Your task to perform on an android device: turn on improve location accuracy Image 0: 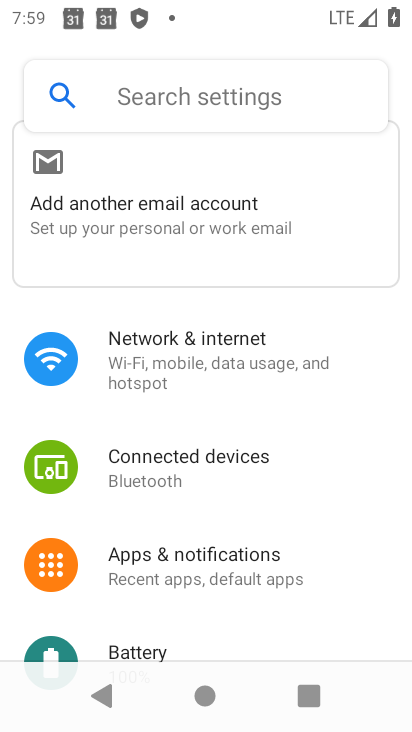
Step 0: press home button
Your task to perform on an android device: turn on improve location accuracy Image 1: 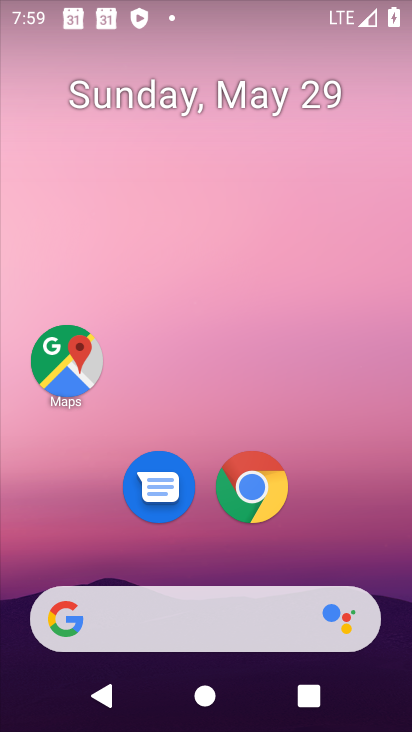
Step 1: drag from (121, 696) to (273, 233)
Your task to perform on an android device: turn on improve location accuracy Image 2: 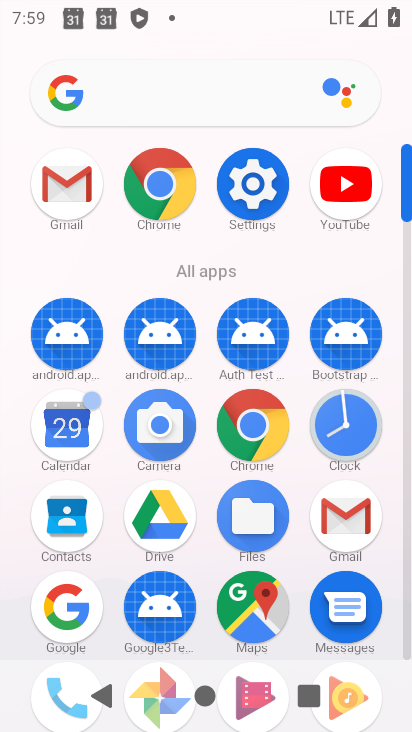
Step 2: click (269, 200)
Your task to perform on an android device: turn on improve location accuracy Image 3: 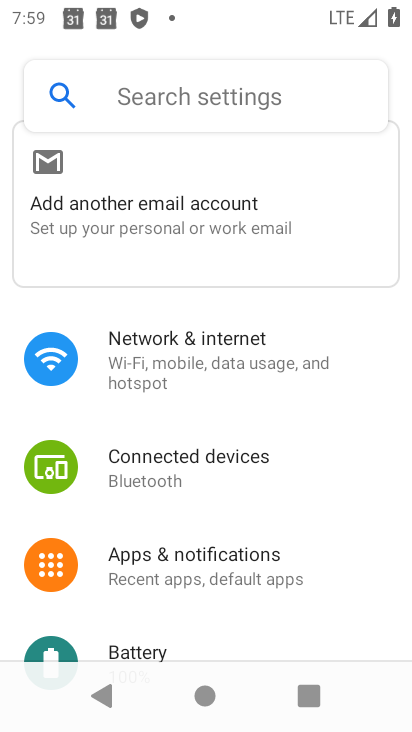
Step 3: drag from (69, 495) to (147, 129)
Your task to perform on an android device: turn on improve location accuracy Image 4: 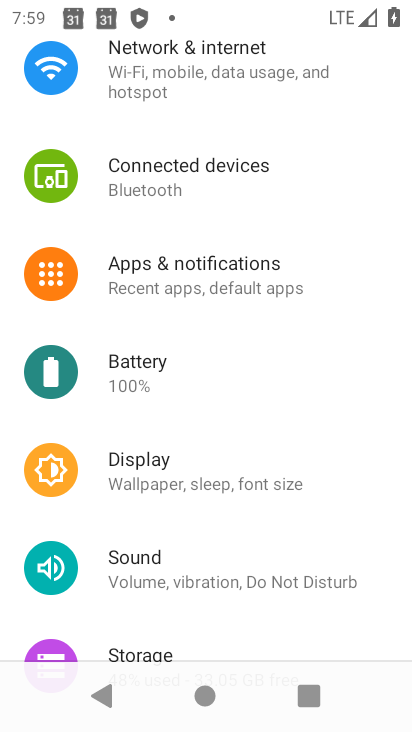
Step 4: drag from (218, 659) to (366, 327)
Your task to perform on an android device: turn on improve location accuracy Image 5: 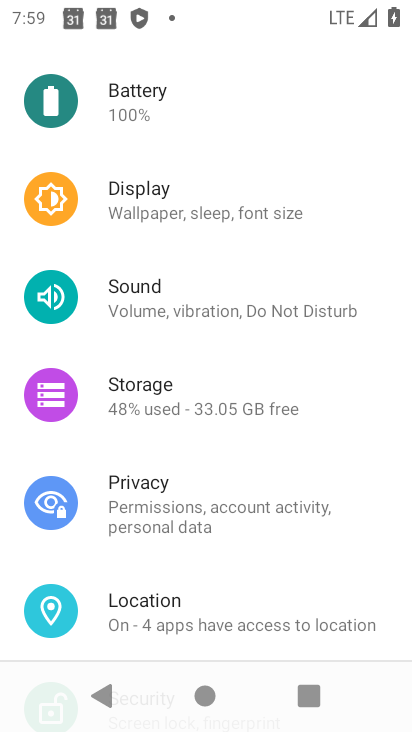
Step 5: click (148, 632)
Your task to perform on an android device: turn on improve location accuracy Image 6: 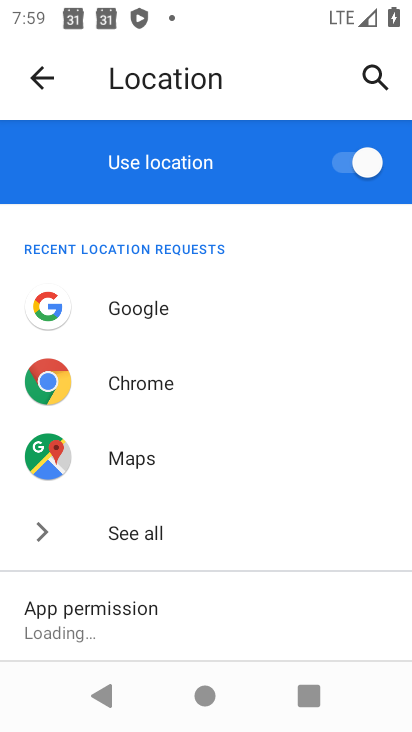
Step 6: drag from (106, 441) to (220, 84)
Your task to perform on an android device: turn on improve location accuracy Image 7: 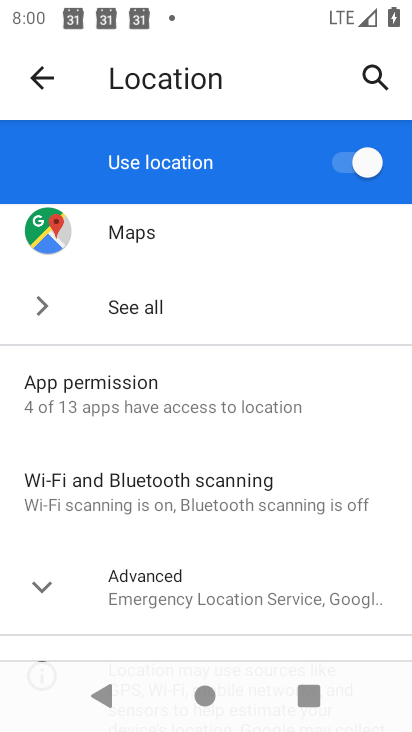
Step 7: drag from (179, 496) to (225, 164)
Your task to perform on an android device: turn on improve location accuracy Image 8: 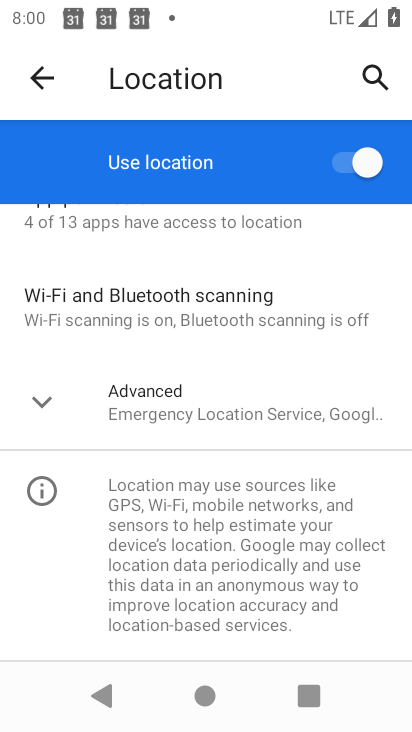
Step 8: click (204, 405)
Your task to perform on an android device: turn on improve location accuracy Image 9: 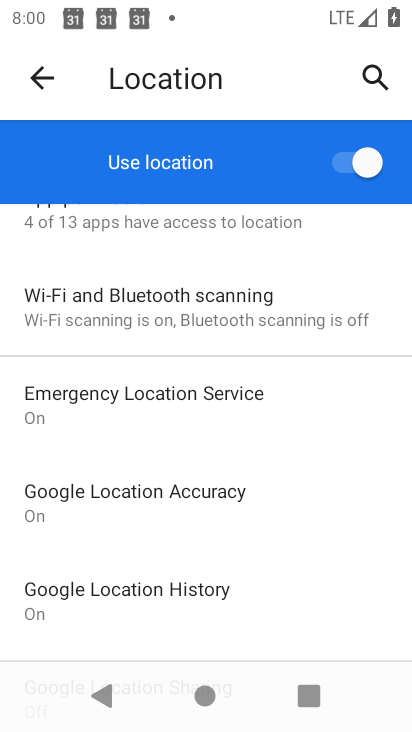
Step 9: click (90, 502)
Your task to perform on an android device: turn on improve location accuracy Image 10: 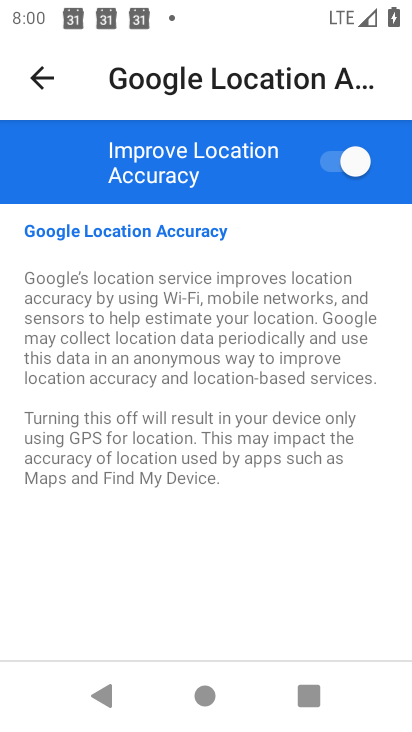
Step 10: task complete